Your task to perform on an android device: turn off priority inbox in the gmail app Image 0: 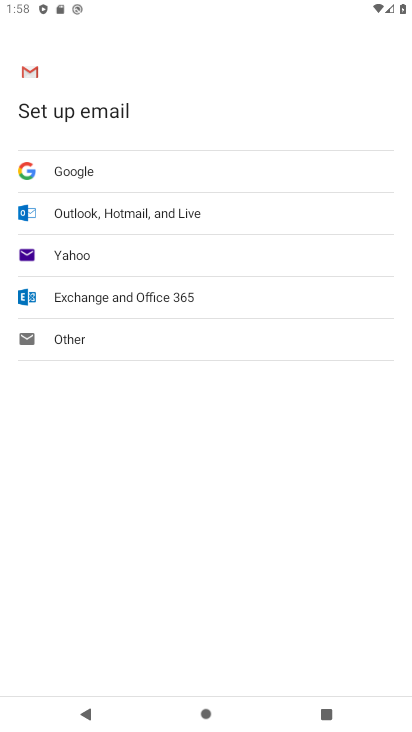
Step 0: press home button
Your task to perform on an android device: turn off priority inbox in the gmail app Image 1: 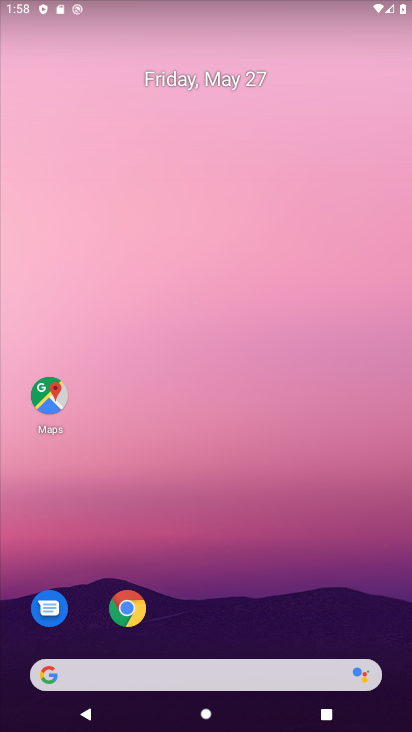
Step 1: drag from (249, 575) to (139, 109)
Your task to perform on an android device: turn off priority inbox in the gmail app Image 2: 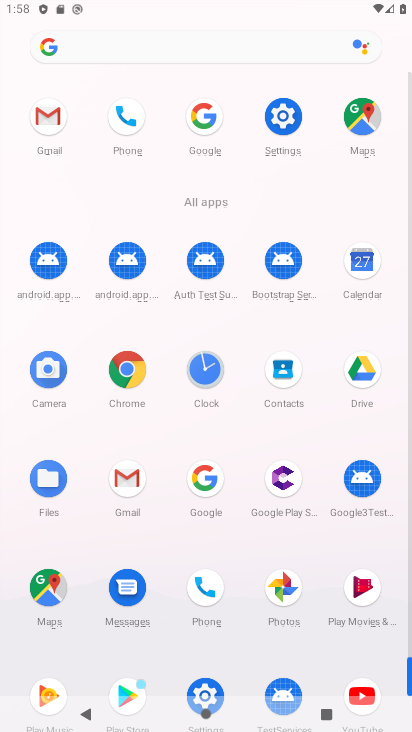
Step 2: click (55, 114)
Your task to perform on an android device: turn off priority inbox in the gmail app Image 3: 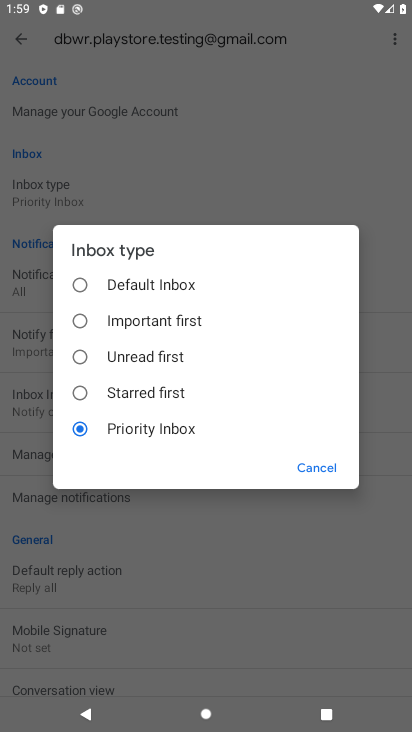
Step 3: click (82, 285)
Your task to perform on an android device: turn off priority inbox in the gmail app Image 4: 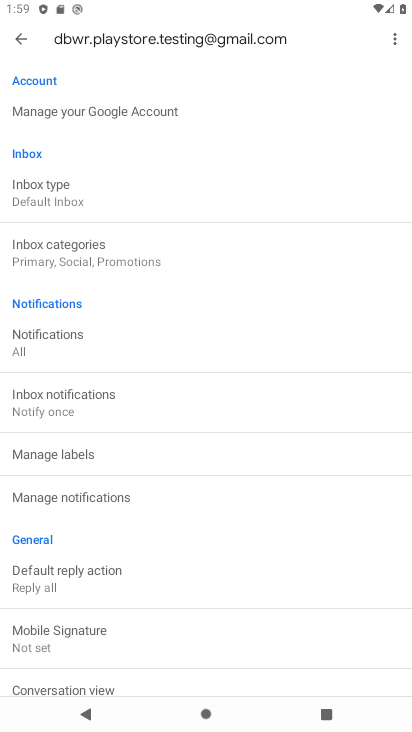
Step 4: task complete